Your task to perform on an android device: Go to Yahoo.com Image 0: 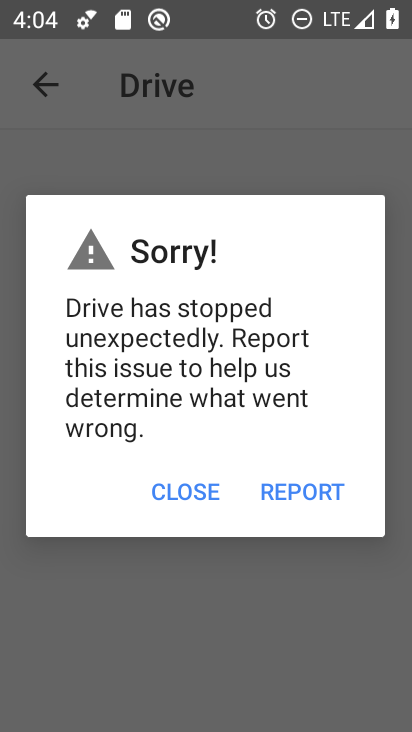
Step 0: press home button
Your task to perform on an android device: Go to Yahoo.com Image 1: 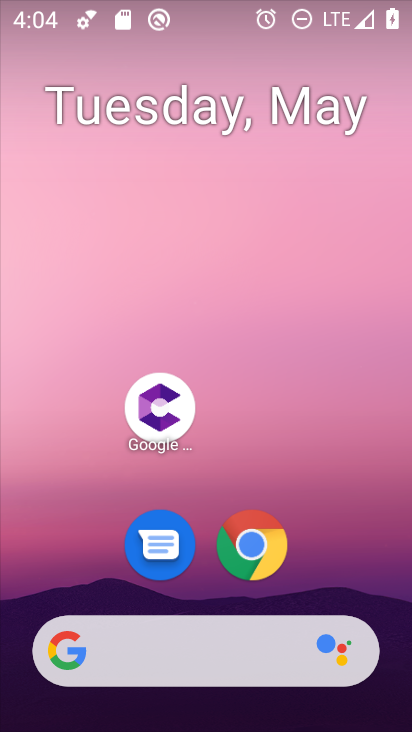
Step 1: drag from (367, 575) to (353, 164)
Your task to perform on an android device: Go to Yahoo.com Image 2: 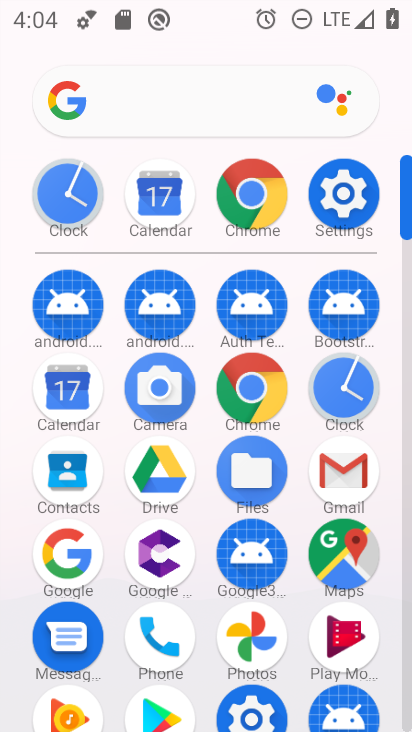
Step 2: click (270, 397)
Your task to perform on an android device: Go to Yahoo.com Image 3: 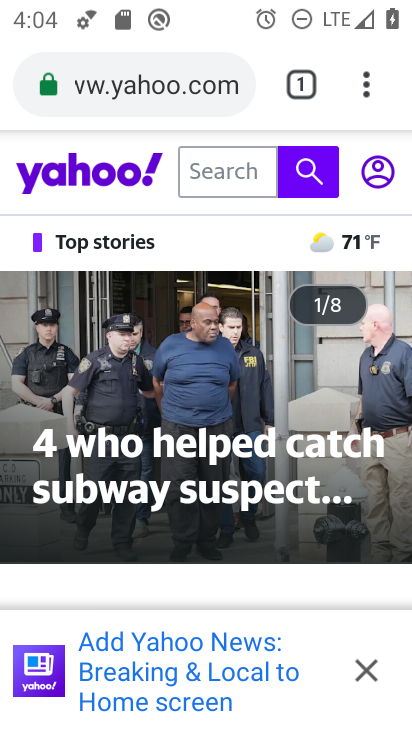
Step 3: task complete